Your task to perform on an android device: Open Youtube and go to "Your channel" Image 0: 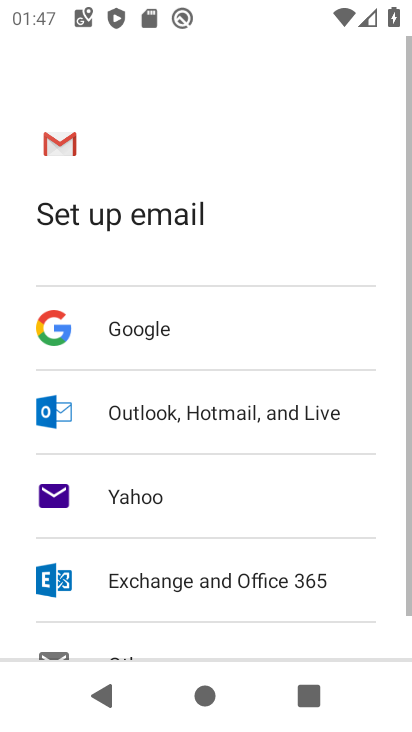
Step 0: click (373, 386)
Your task to perform on an android device: Open Youtube and go to "Your channel" Image 1: 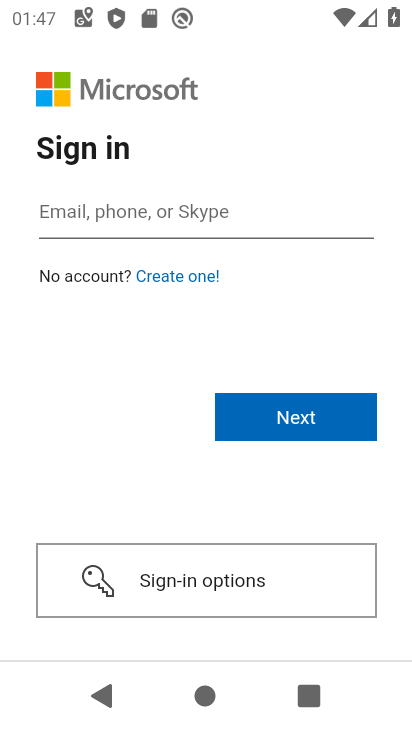
Step 1: press home button
Your task to perform on an android device: Open Youtube and go to "Your channel" Image 2: 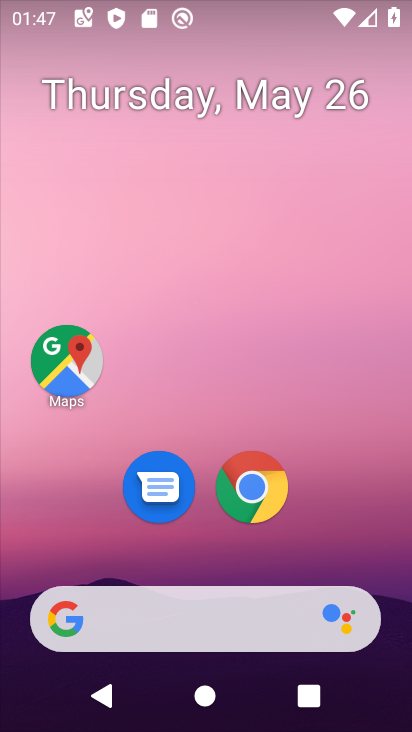
Step 2: drag from (219, 612) to (266, 14)
Your task to perform on an android device: Open Youtube and go to "Your channel" Image 3: 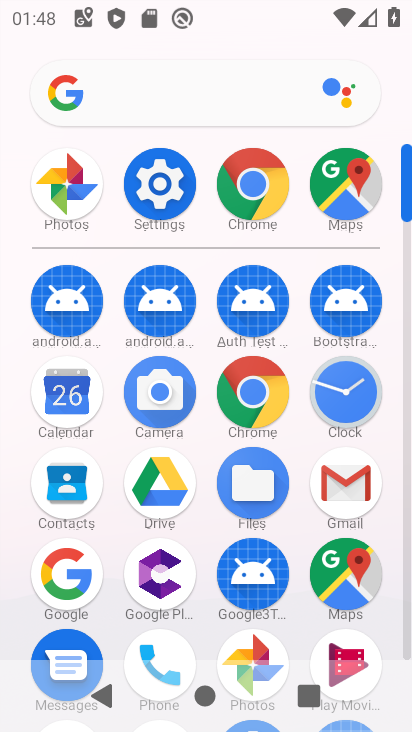
Step 3: drag from (220, 570) to (266, 35)
Your task to perform on an android device: Open Youtube and go to "Your channel" Image 4: 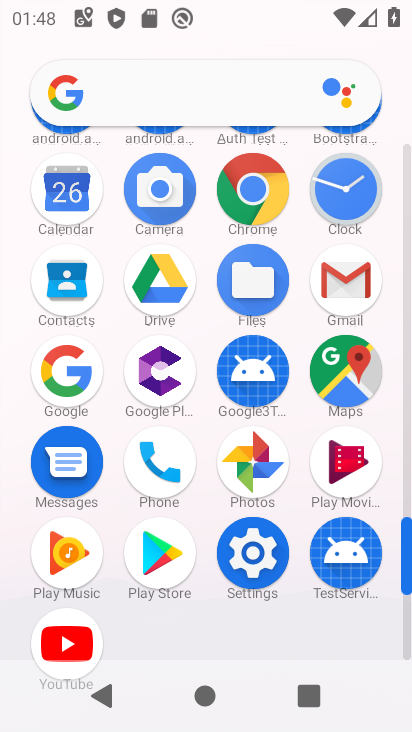
Step 4: click (73, 635)
Your task to perform on an android device: Open Youtube and go to "Your channel" Image 5: 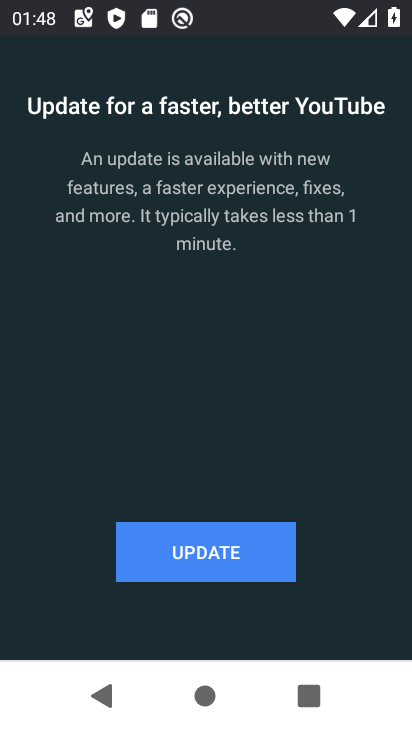
Step 5: click (195, 558)
Your task to perform on an android device: Open Youtube and go to "Your channel" Image 6: 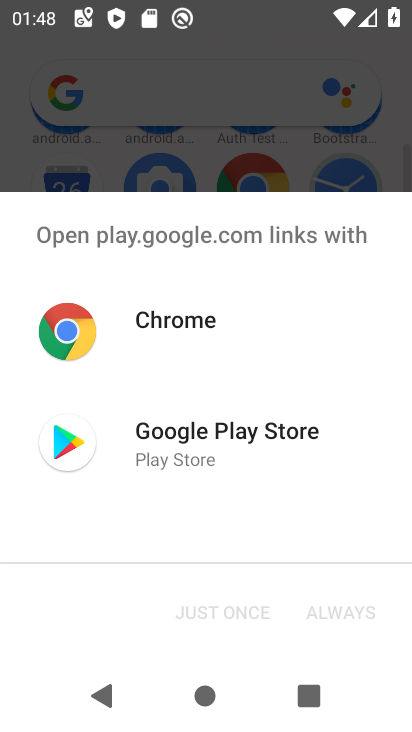
Step 6: click (177, 450)
Your task to perform on an android device: Open Youtube and go to "Your channel" Image 7: 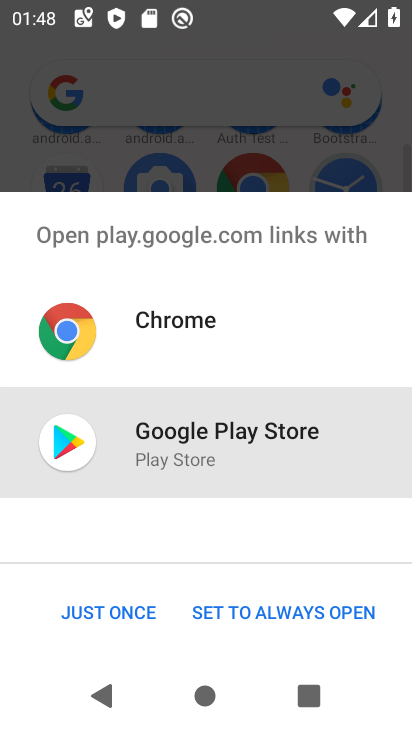
Step 7: click (101, 612)
Your task to perform on an android device: Open Youtube and go to "Your channel" Image 8: 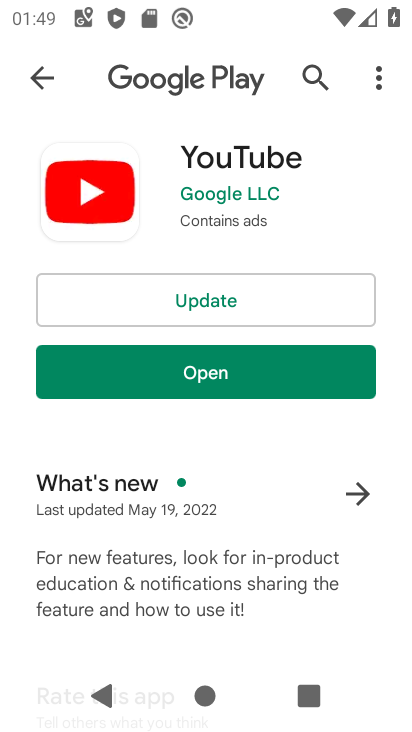
Step 8: click (152, 308)
Your task to perform on an android device: Open Youtube and go to "Your channel" Image 9: 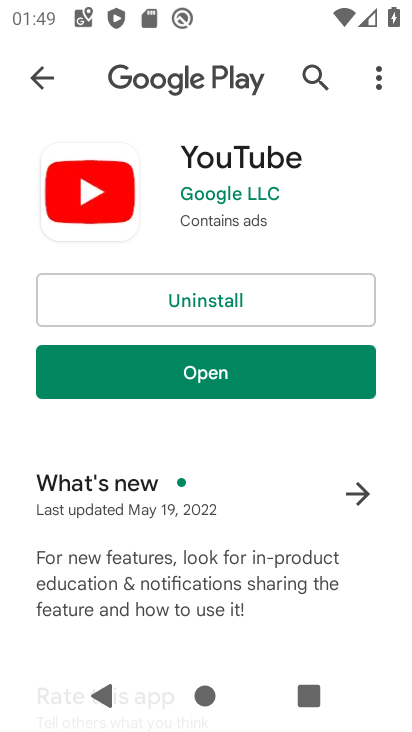
Step 9: click (237, 379)
Your task to perform on an android device: Open Youtube and go to "Your channel" Image 10: 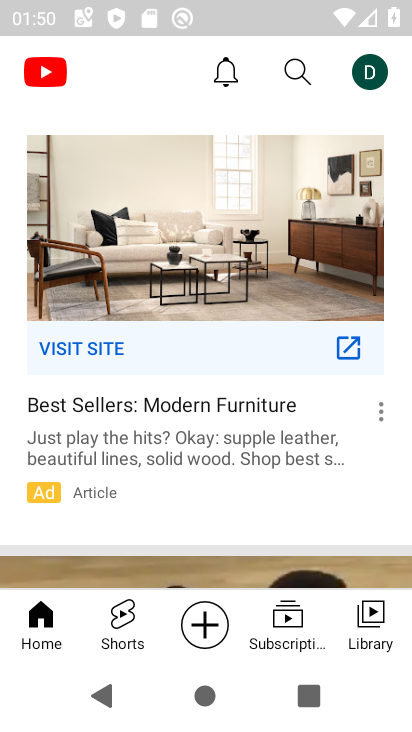
Step 10: click (378, 68)
Your task to perform on an android device: Open Youtube and go to "Your channel" Image 11: 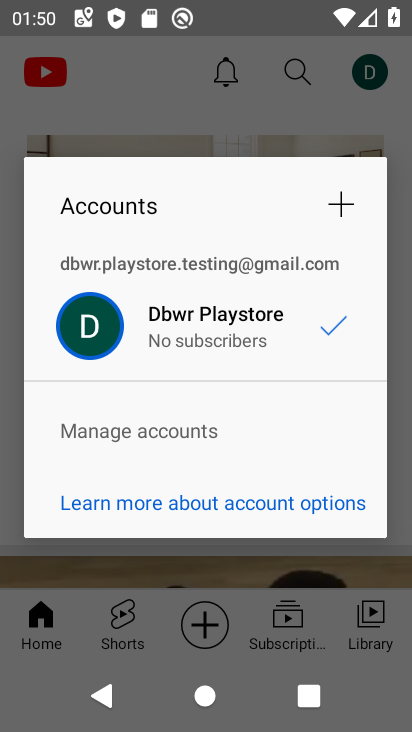
Step 11: click (378, 68)
Your task to perform on an android device: Open Youtube and go to "Your channel" Image 12: 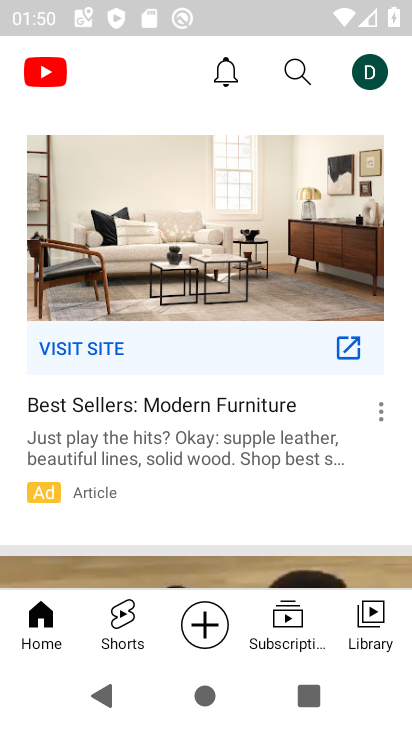
Step 12: click (378, 68)
Your task to perform on an android device: Open Youtube and go to "Your channel" Image 13: 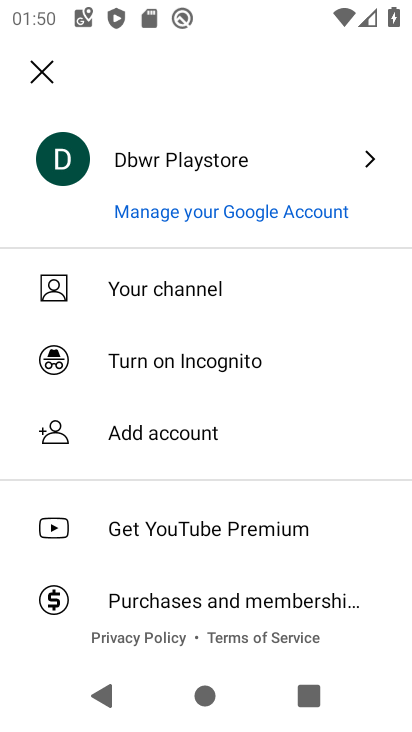
Step 13: click (154, 283)
Your task to perform on an android device: Open Youtube and go to "Your channel" Image 14: 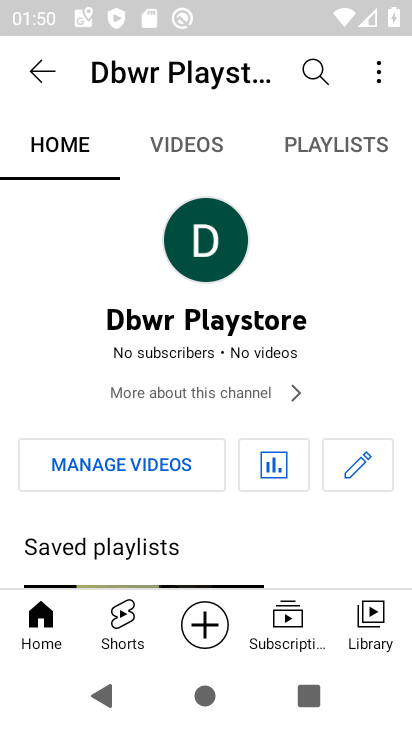
Step 14: task complete